Your task to perform on an android device: clear history in the chrome app Image 0: 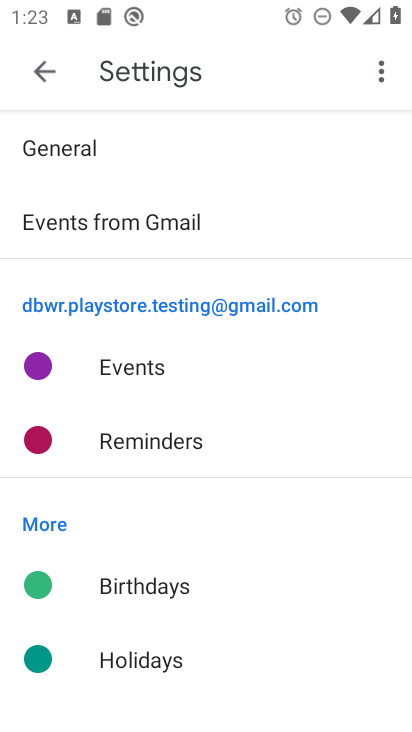
Step 0: press home button
Your task to perform on an android device: clear history in the chrome app Image 1: 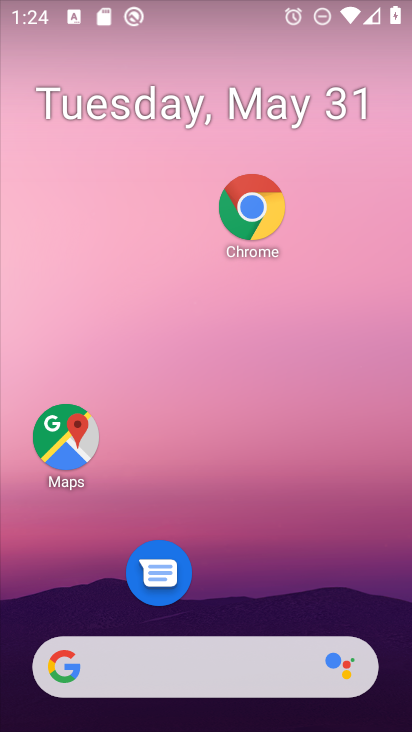
Step 1: drag from (192, 665) to (165, 182)
Your task to perform on an android device: clear history in the chrome app Image 2: 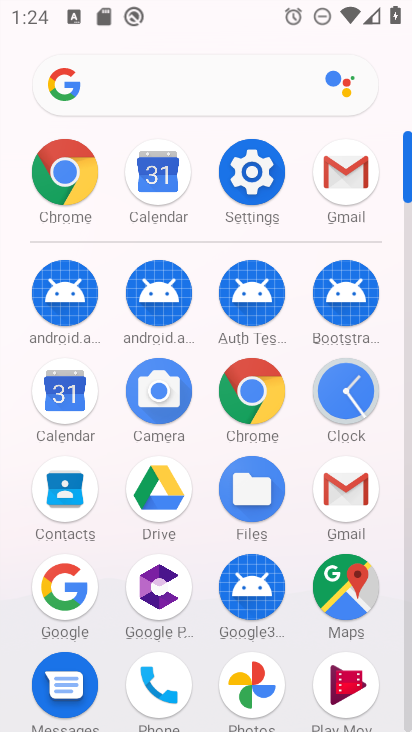
Step 2: click (252, 414)
Your task to perform on an android device: clear history in the chrome app Image 3: 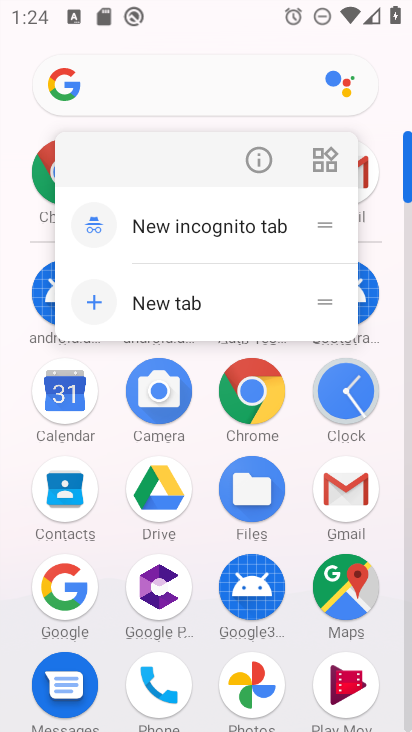
Step 3: click (254, 429)
Your task to perform on an android device: clear history in the chrome app Image 4: 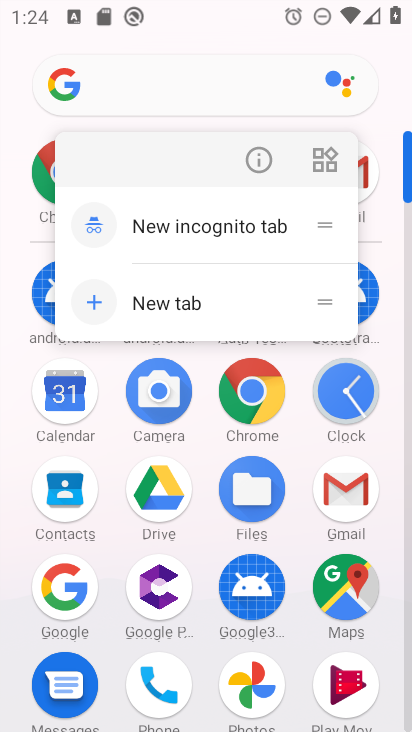
Step 4: click (252, 405)
Your task to perform on an android device: clear history in the chrome app Image 5: 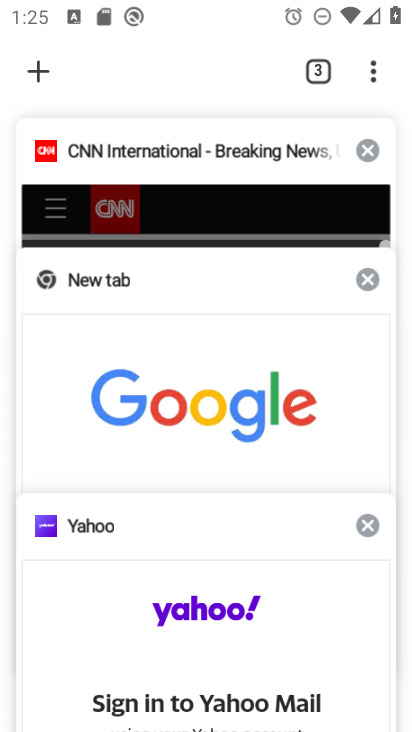
Step 5: click (216, 603)
Your task to perform on an android device: clear history in the chrome app Image 6: 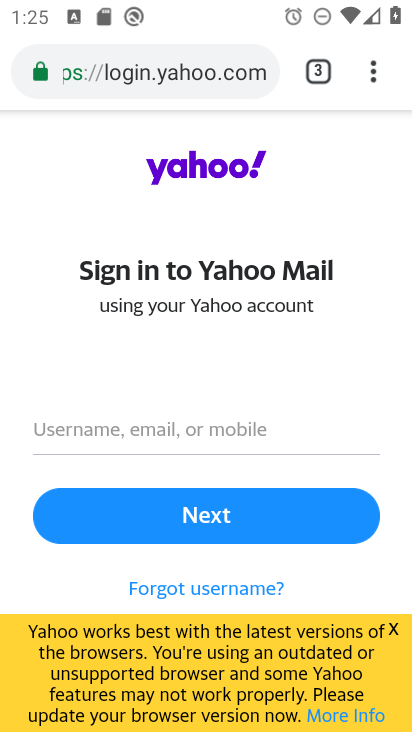
Step 6: click (366, 76)
Your task to perform on an android device: clear history in the chrome app Image 7: 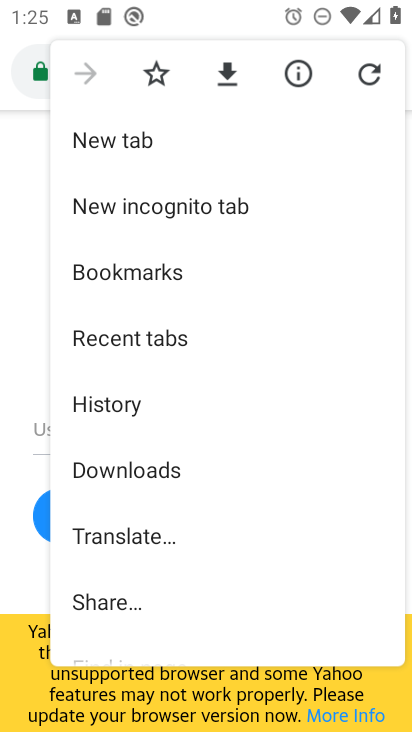
Step 7: click (118, 413)
Your task to perform on an android device: clear history in the chrome app Image 8: 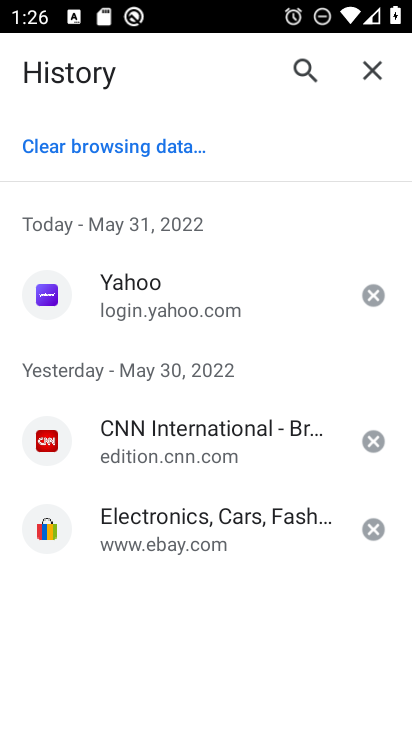
Step 8: click (133, 146)
Your task to perform on an android device: clear history in the chrome app Image 9: 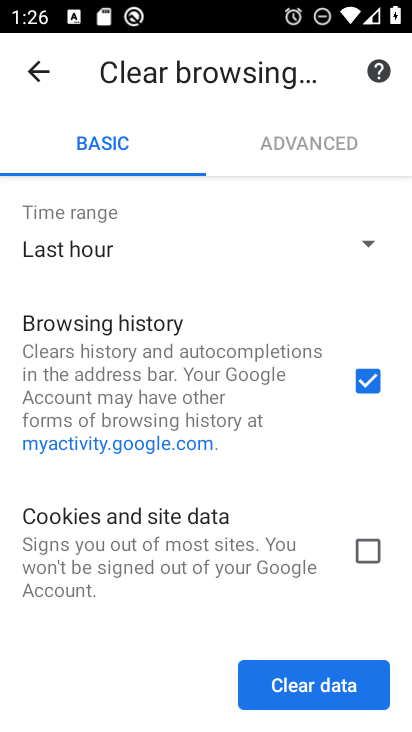
Step 9: click (265, 694)
Your task to perform on an android device: clear history in the chrome app Image 10: 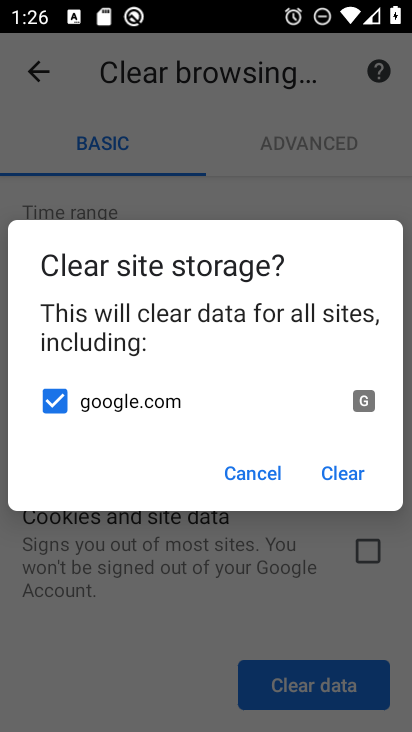
Step 10: click (349, 474)
Your task to perform on an android device: clear history in the chrome app Image 11: 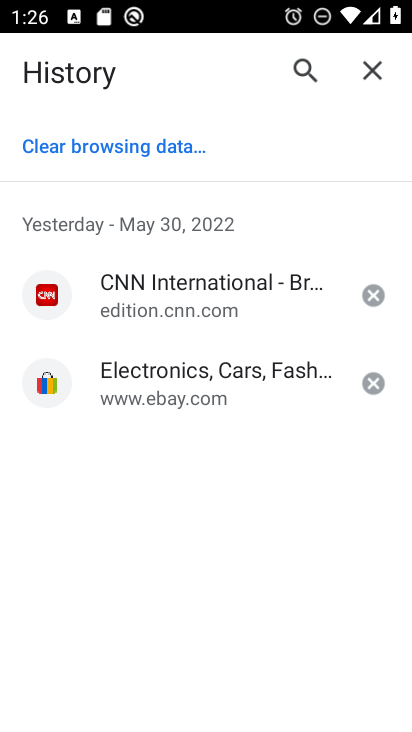
Step 11: task complete